Your task to perform on an android device: search for starred emails in the gmail app Image 0: 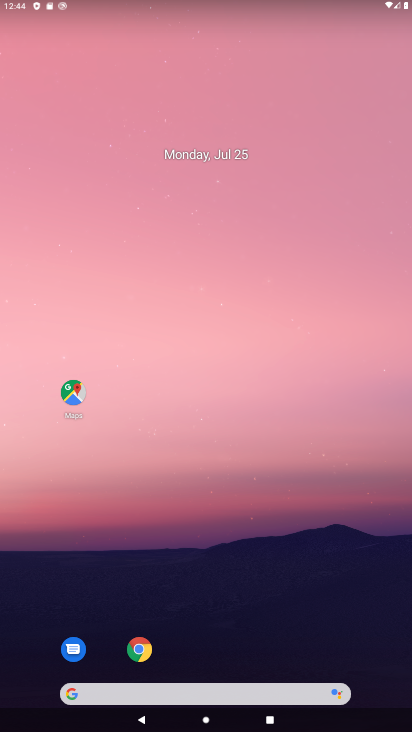
Step 0: drag from (294, 597) to (307, 39)
Your task to perform on an android device: search for starred emails in the gmail app Image 1: 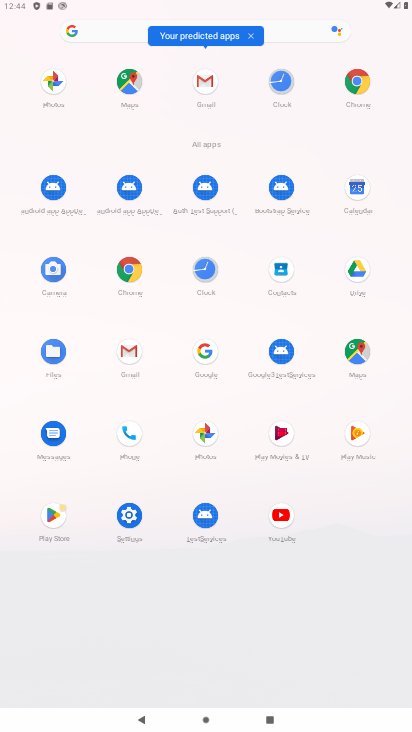
Step 1: click (208, 78)
Your task to perform on an android device: search for starred emails in the gmail app Image 2: 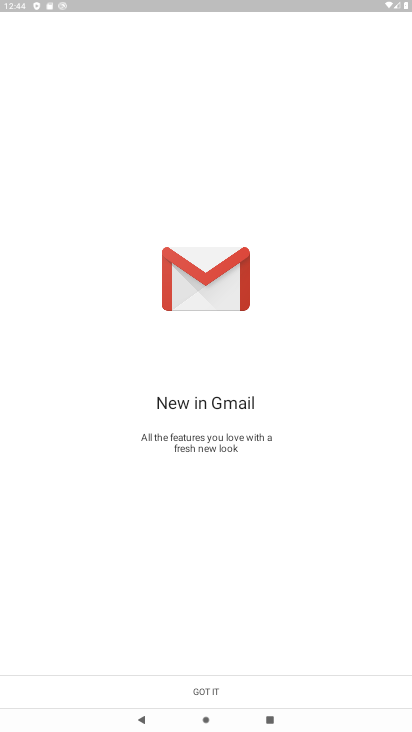
Step 2: click (196, 687)
Your task to perform on an android device: search for starred emails in the gmail app Image 3: 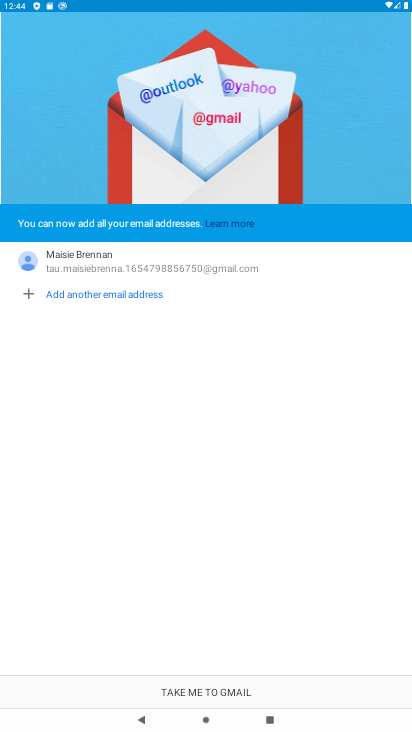
Step 3: click (205, 689)
Your task to perform on an android device: search for starred emails in the gmail app Image 4: 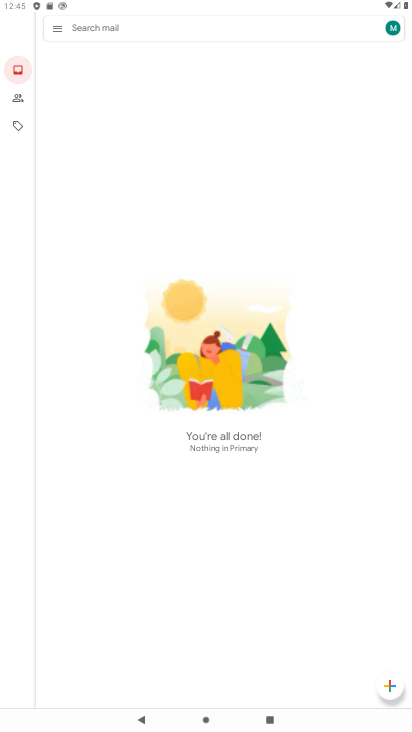
Step 4: click (60, 29)
Your task to perform on an android device: search for starred emails in the gmail app Image 5: 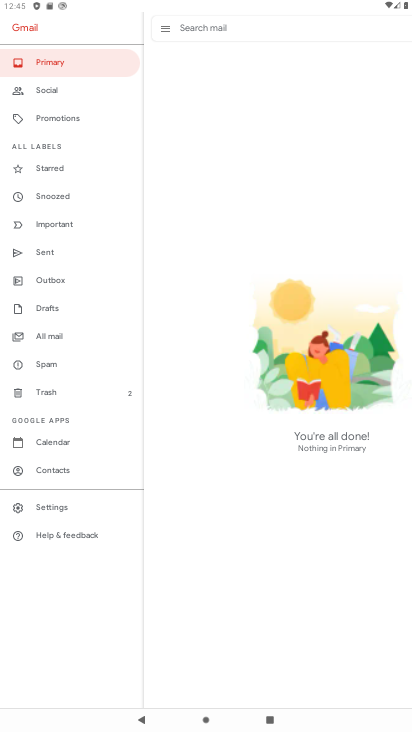
Step 5: click (50, 166)
Your task to perform on an android device: search for starred emails in the gmail app Image 6: 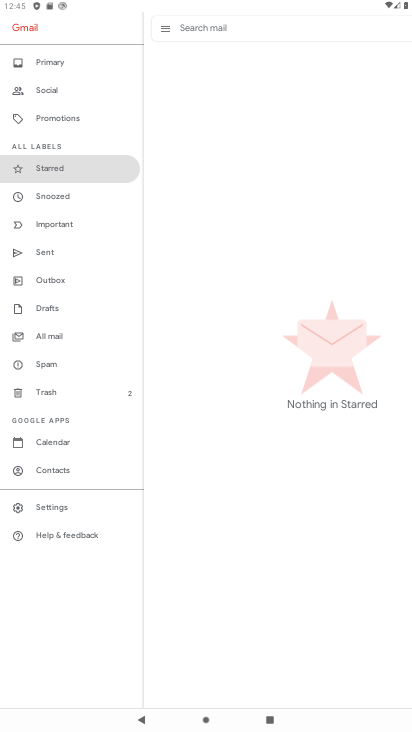
Step 6: task complete